Your task to perform on an android device: Open my contact list Image 0: 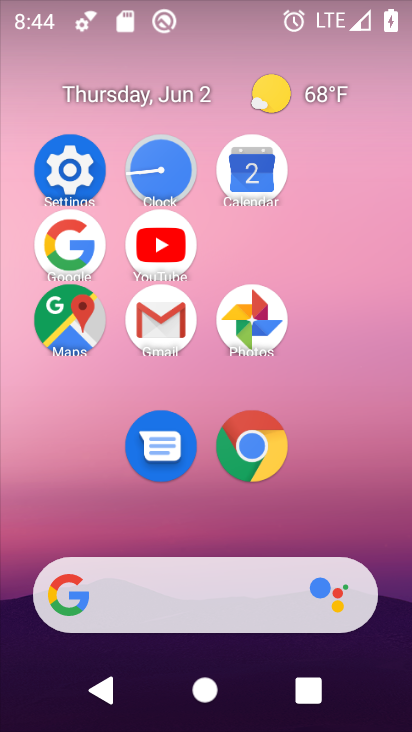
Step 0: drag from (363, 507) to (378, 59)
Your task to perform on an android device: Open my contact list Image 1: 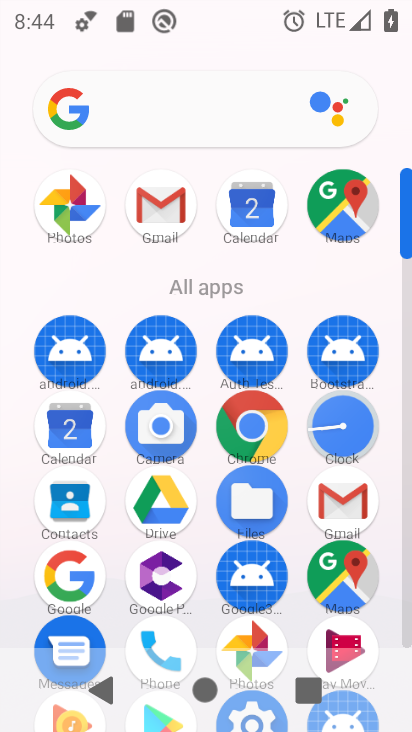
Step 1: drag from (70, 515) to (294, 189)
Your task to perform on an android device: Open my contact list Image 2: 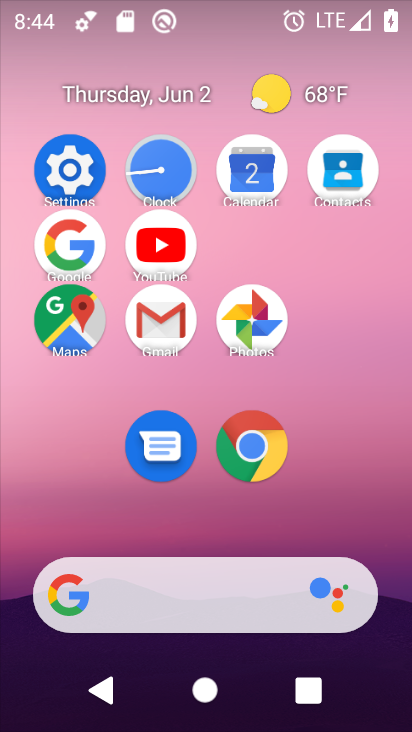
Step 2: click (343, 173)
Your task to perform on an android device: Open my contact list Image 3: 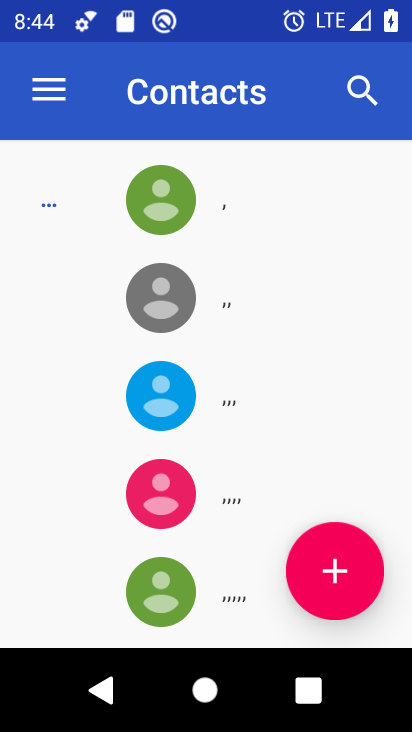
Step 3: task complete